Your task to perform on an android device: visit the assistant section in the google photos Image 0: 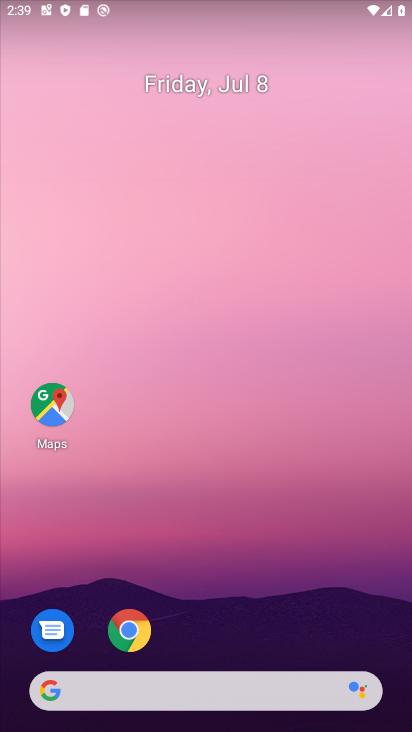
Step 0: drag from (362, 616) to (169, 91)
Your task to perform on an android device: visit the assistant section in the google photos Image 1: 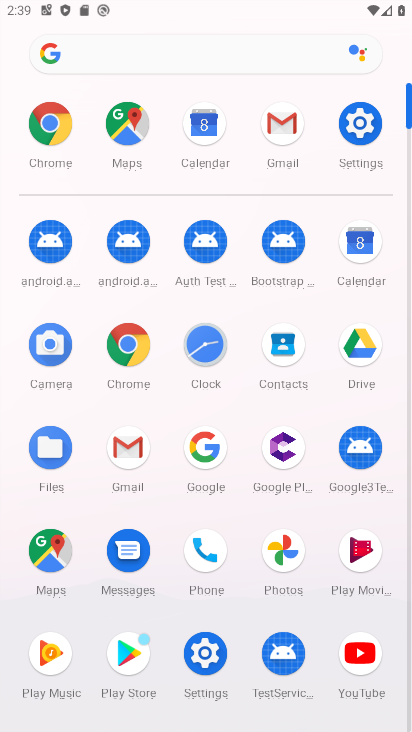
Step 1: click (284, 547)
Your task to perform on an android device: visit the assistant section in the google photos Image 2: 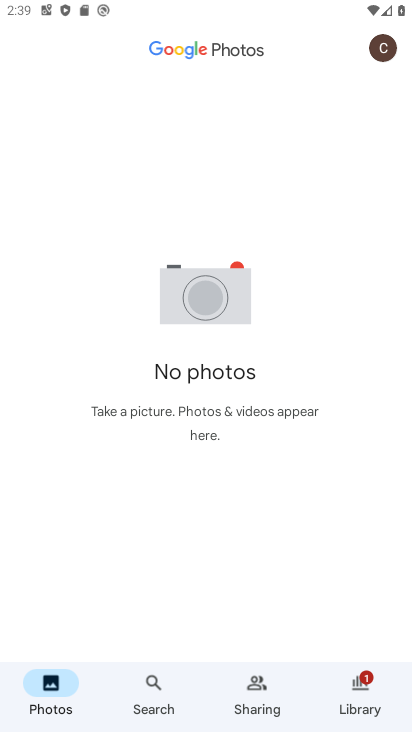
Step 2: click (339, 675)
Your task to perform on an android device: visit the assistant section in the google photos Image 3: 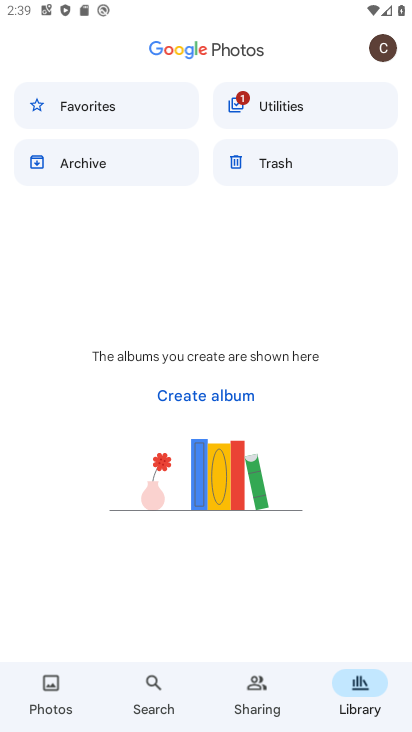
Step 3: task complete